Your task to perform on an android device: Show me popular games on the Play Store Image 0: 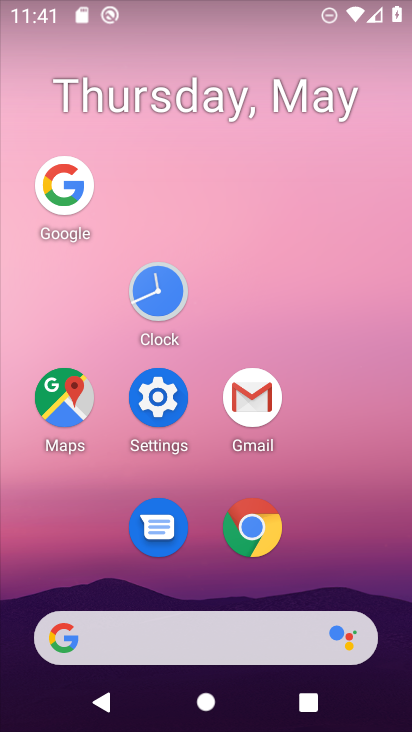
Step 0: drag from (357, 560) to (347, 152)
Your task to perform on an android device: Show me popular games on the Play Store Image 1: 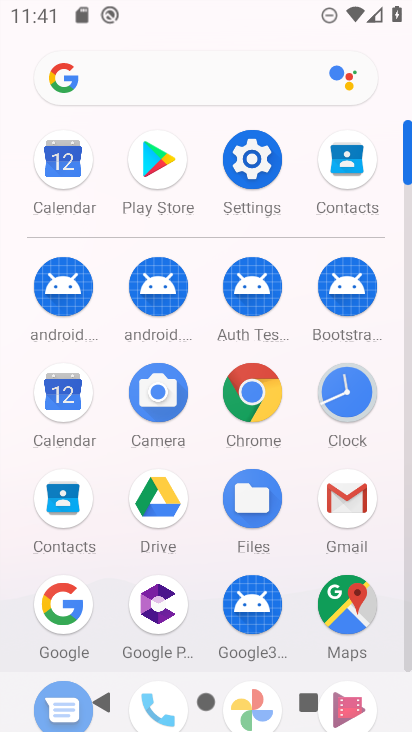
Step 1: click (405, 655)
Your task to perform on an android device: Show me popular games on the Play Store Image 2: 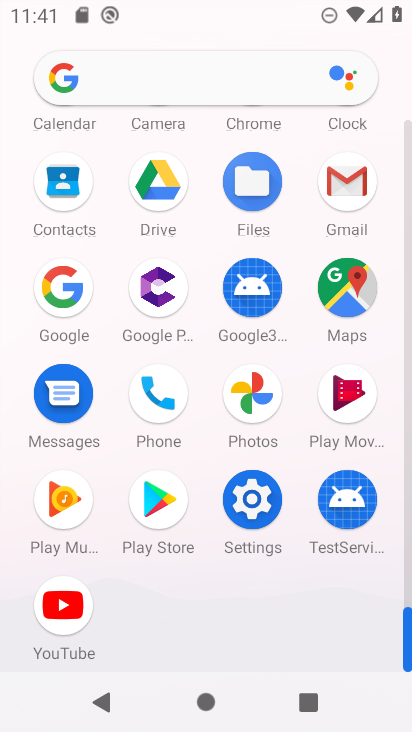
Step 2: click (151, 540)
Your task to perform on an android device: Show me popular games on the Play Store Image 3: 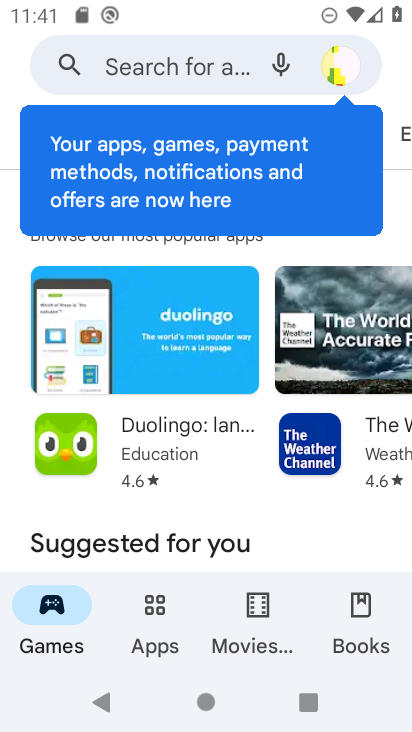
Step 3: click (335, 183)
Your task to perform on an android device: Show me popular games on the Play Store Image 4: 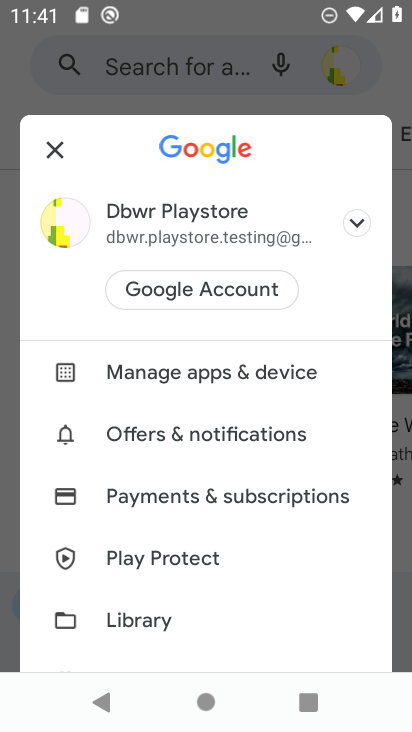
Step 4: click (46, 144)
Your task to perform on an android device: Show me popular games on the Play Store Image 5: 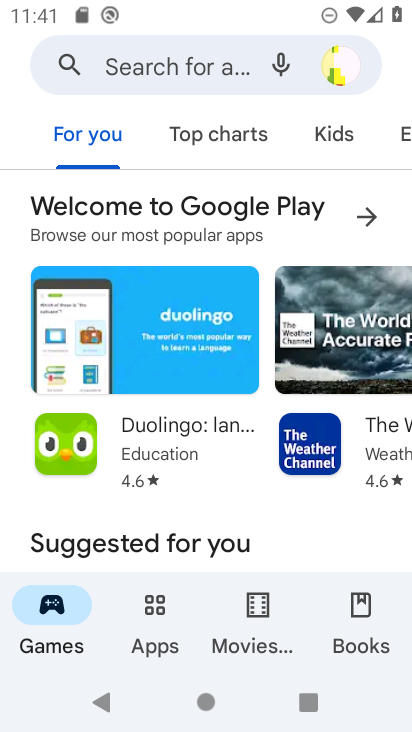
Step 5: task complete